Your task to perform on an android device: Open accessibility settings Image 0: 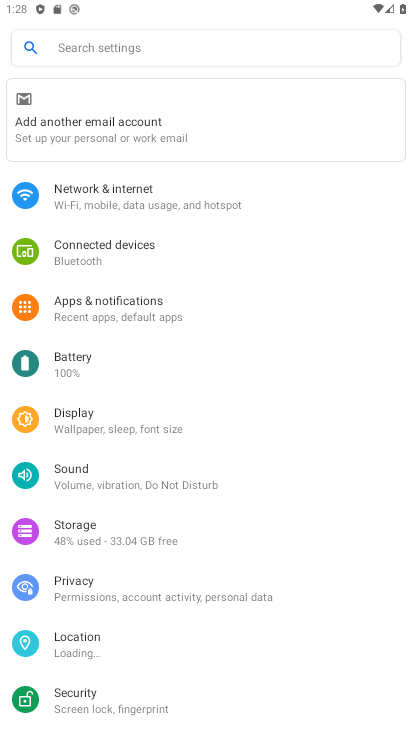
Step 0: drag from (112, 658) to (137, 214)
Your task to perform on an android device: Open accessibility settings Image 1: 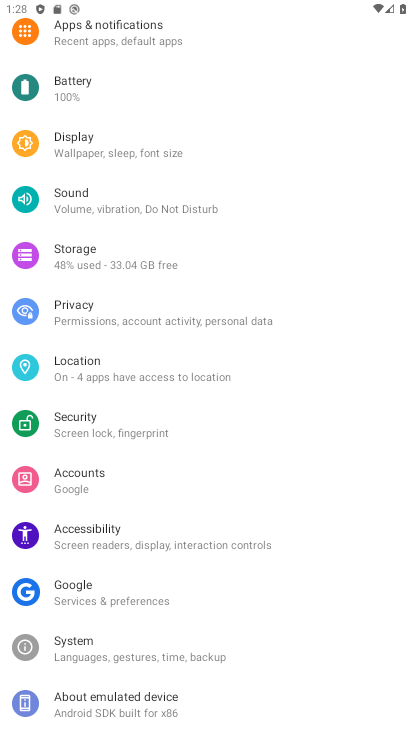
Step 1: click (113, 533)
Your task to perform on an android device: Open accessibility settings Image 2: 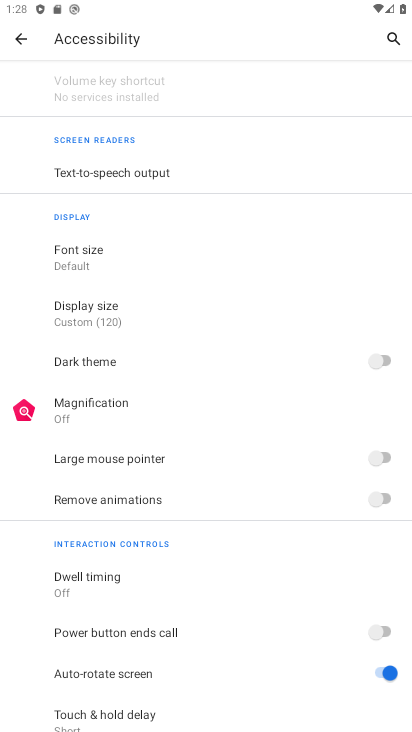
Step 2: task complete